Your task to perform on an android device: check data usage Image 0: 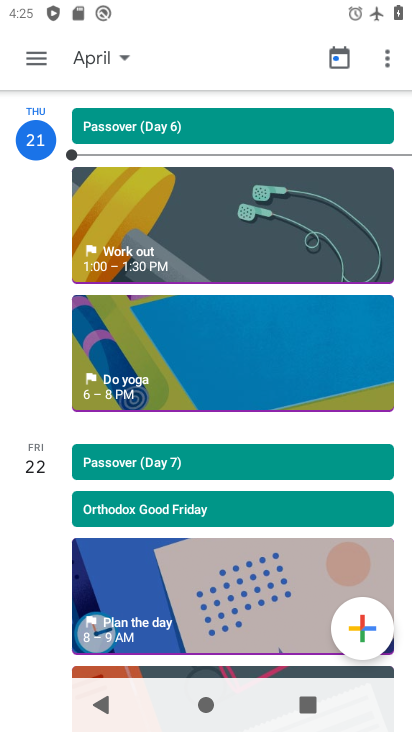
Step 0: press home button
Your task to perform on an android device: check data usage Image 1: 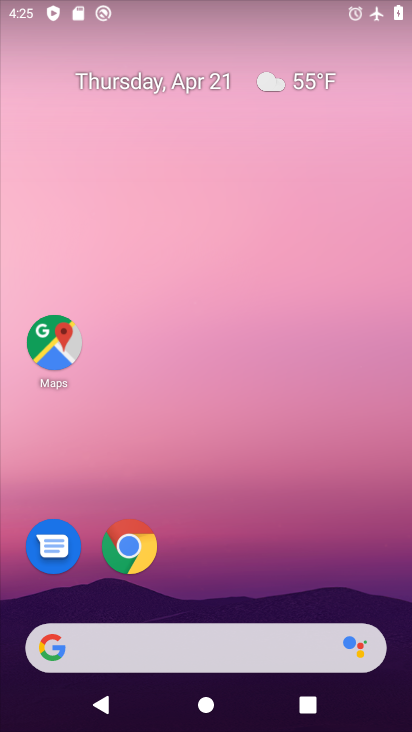
Step 1: drag from (285, 349) to (332, 74)
Your task to perform on an android device: check data usage Image 2: 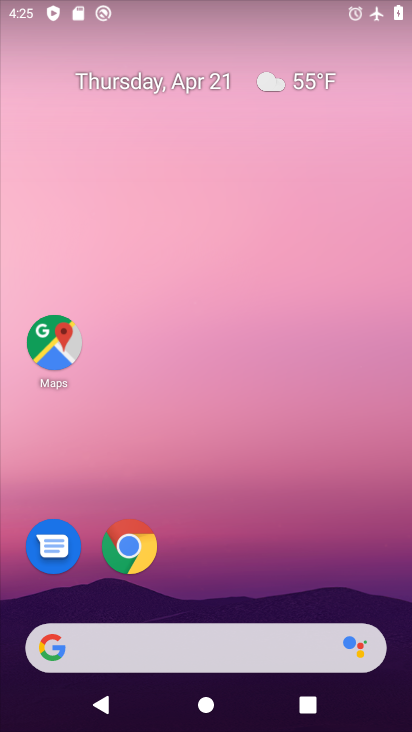
Step 2: drag from (276, 593) to (264, 239)
Your task to perform on an android device: check data usage Image 3: 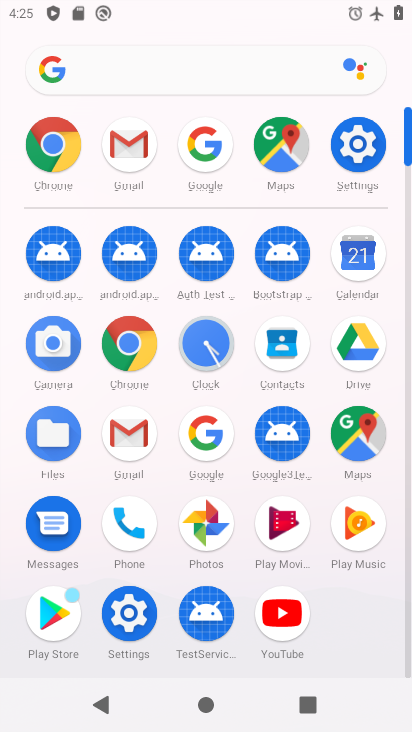
Step 3: click (365, 156)
Your task to perform on an android device: check data usage Image 4: 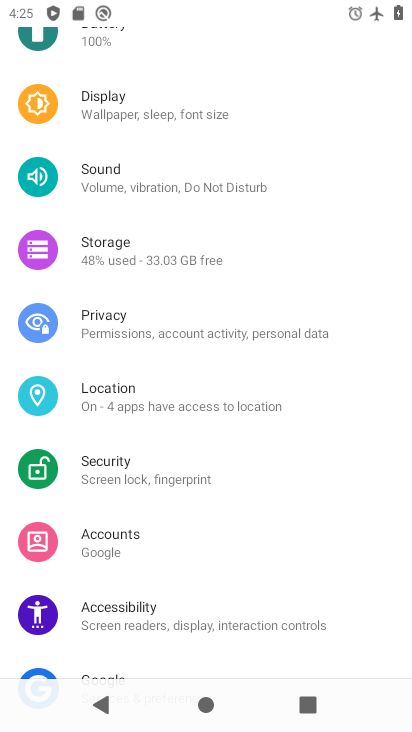
Step 4: drag from (200, 150) to (235, 560)
Your task to perform on an android device: check data usage Image 5: 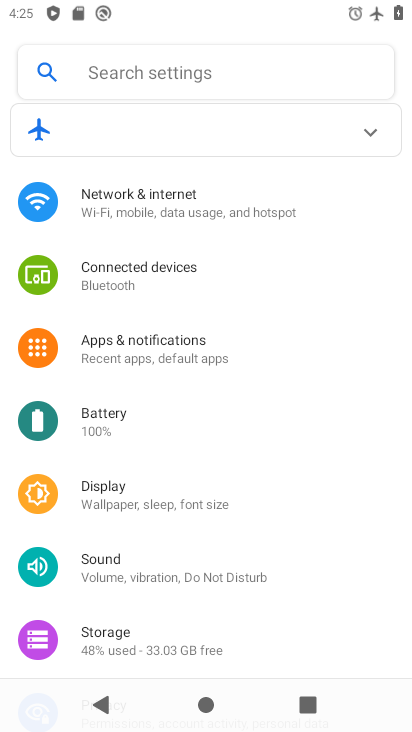
Step 5: click (198, 201)
Your task to perform on an android device: check data usage Image 6: 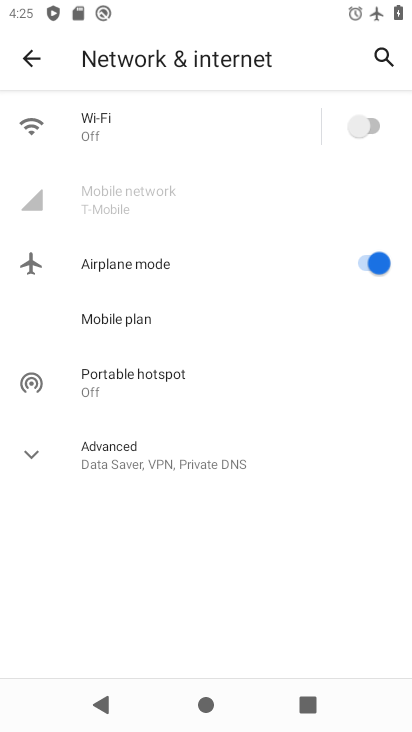
Step 6: click (142, 127)
Your task to perform on an android device: check data usage Image 7: 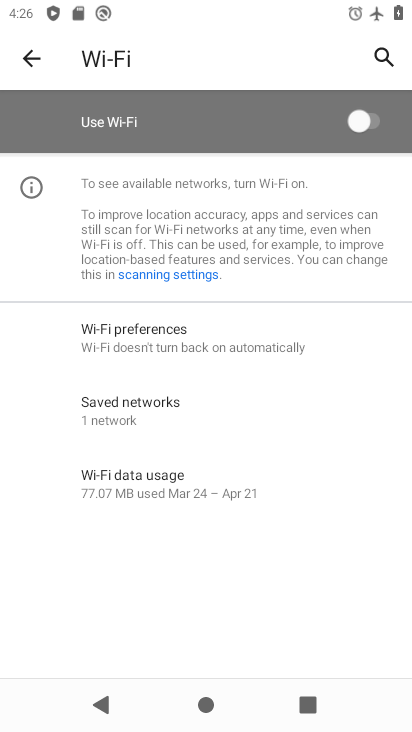
Step 7: click (147, 488)
Your task to perform on an android device: check data usage Image 8: 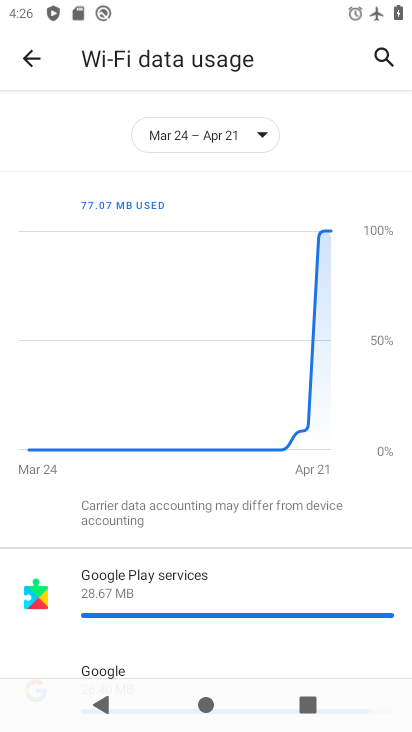
Step 8: task complete